Your task to perform on an android device: change the upload size in google photos Image 0: 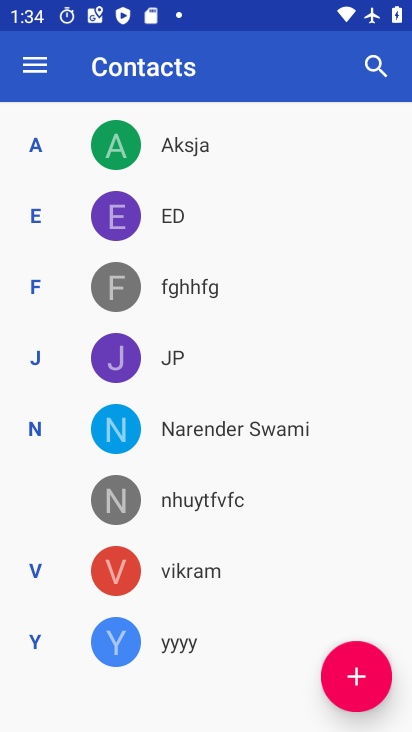
Step 0: press home button
Your task to perform on an android device: change the upload size in google photos Image 1: 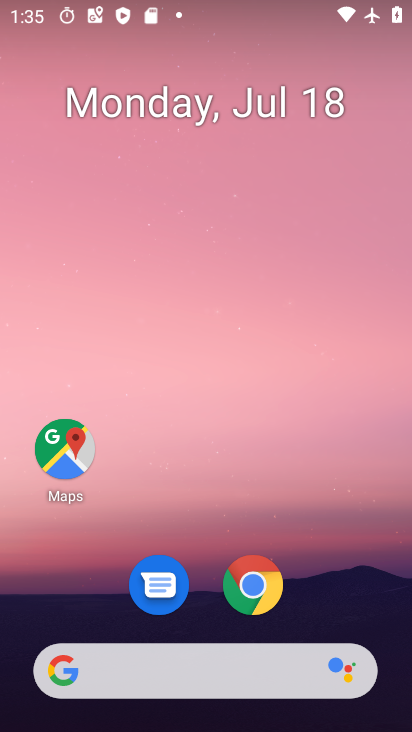
Step 1: drag from (217, 622) to (285, 102)
Your task to perform on an android device: change the upload size in google photos Image 2: 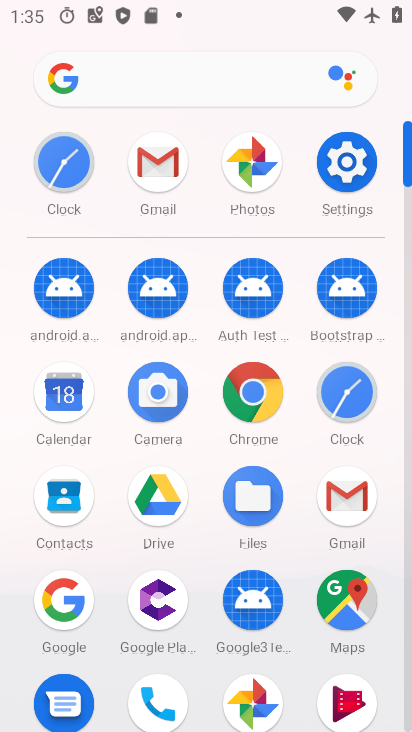
Step 2: drag from (199, 630) to (286, 261)
Your task to perform on an android device: change the upload size in google photos Image 3: 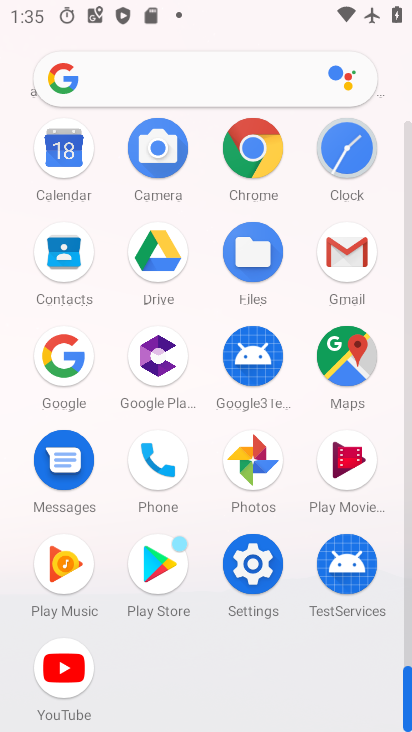
Step 3: click (250, 461)
Your task to perform on an android device: change the upload size in google photos Image 4: 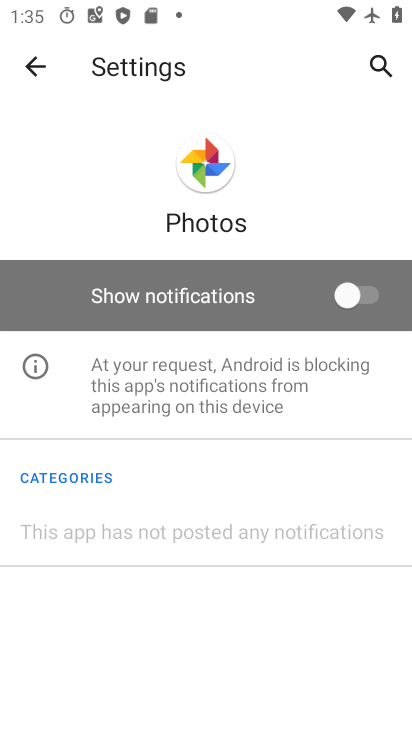
Step 4: click (38, 71)
Your task to perform on an android device: change the upload size in google photos Image 5: 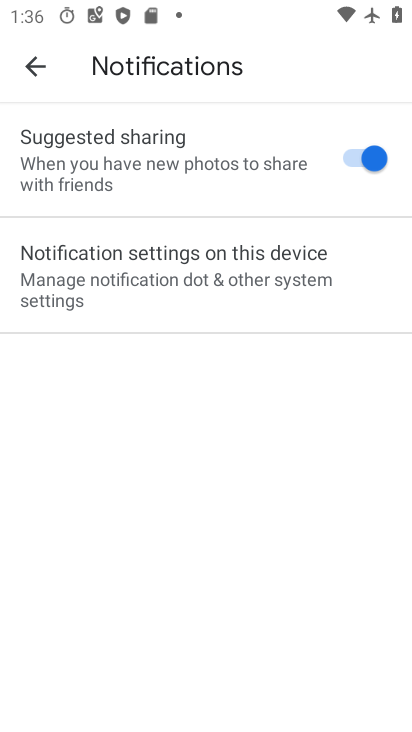
Step 5: click (35, 61)
Your task to perform on an android device: change the upload size in google photos Image 6: 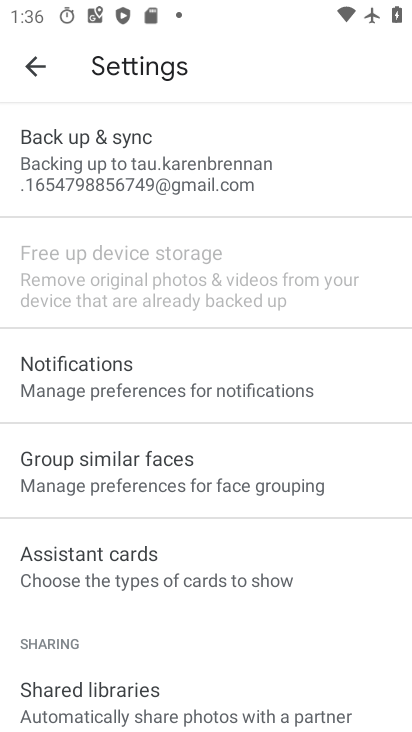
Step 6: click (184, 176)
Your task to perform on an android device: change the upload size in google photos Image 7: 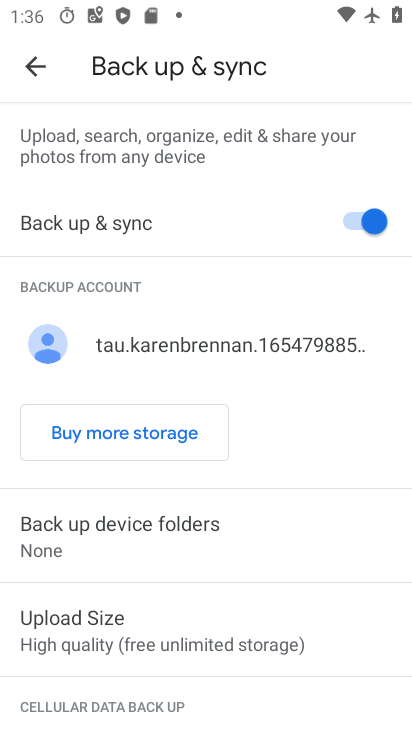
Step 7: click (144, 624)
Your task to perform on an android device: change the upload size in google photos Image 8: 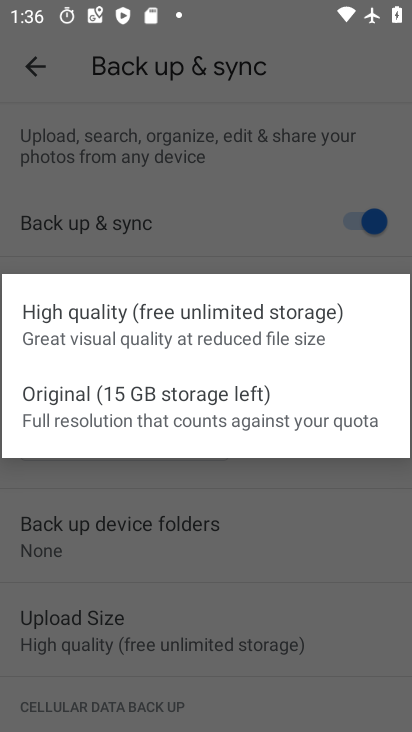
Step 8: click (91, 407)
Your task to perform on an android device: change the upload size in google photos Image 9: 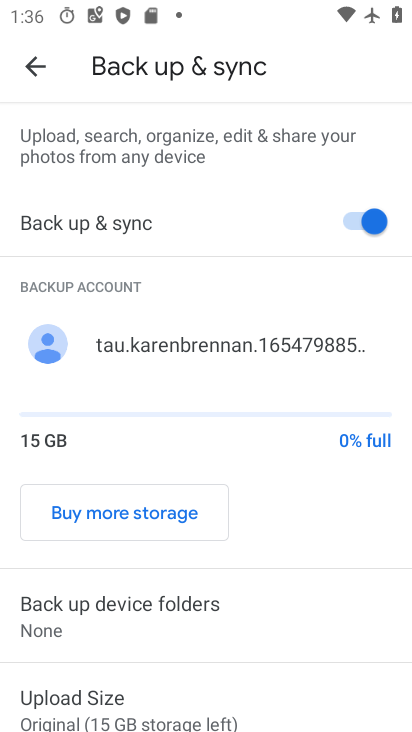
Step 9: task complete